Your task to perform on an android device: change the clock display to analog Image 0: 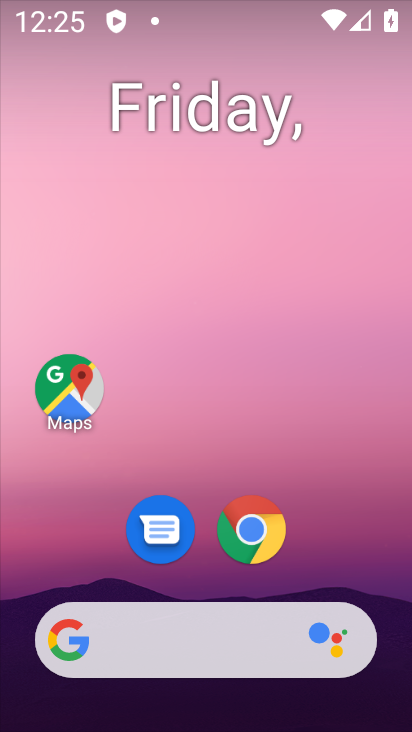
Step 0: drag from (201, 600) to (197, 174)
Your task to perform on an android device: change the clock display to analog Image 1: 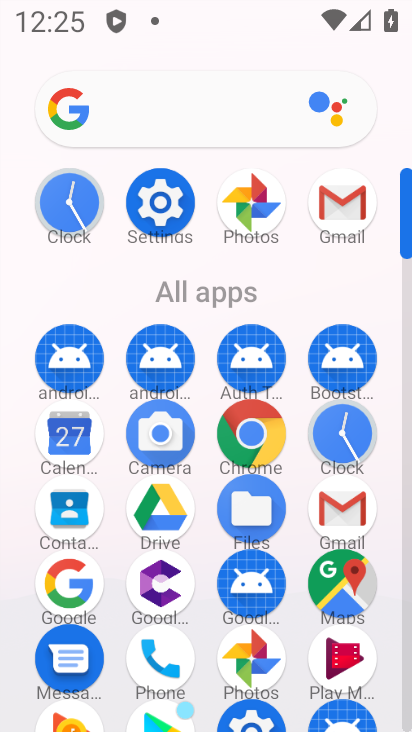
Step 1: click (348, 437)
Your task to perform on an android device: change the clock display to analog Image 2: 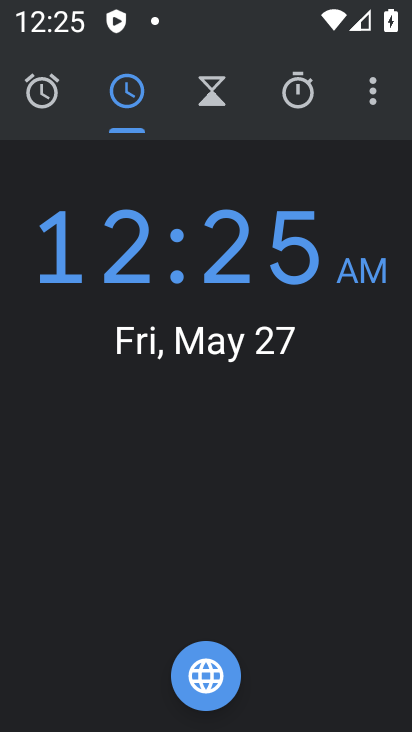
Step 2: click (373, 91)
Your task to perform on an android device: change the clock display to analog Image 3: 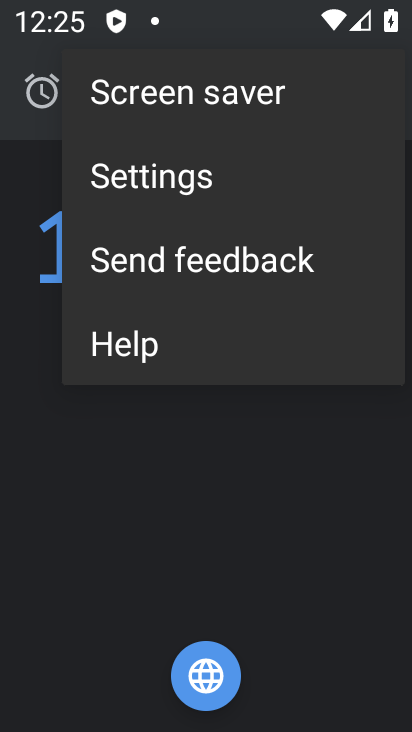
Step 3: click (193, 183)
Your task to perform on an android device: change the clock display to analog Image 4: 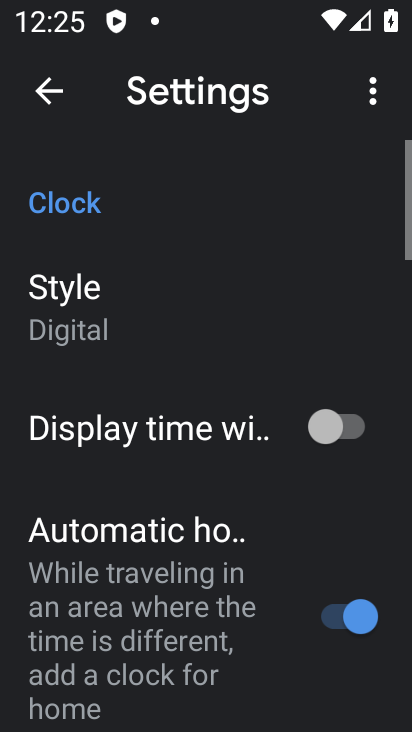
Step 4: click (83, 328)
Your task to perform on an android device: change the clock display to analog Image 5: 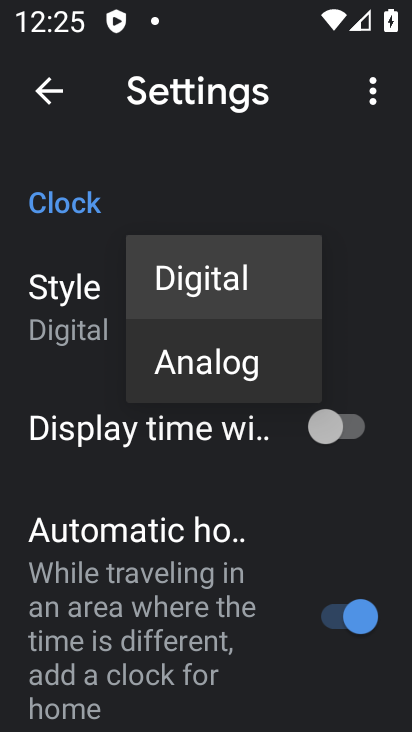
Step 5: click (172, 360)
Your task to perform on an android device: change the clock display to analog Image 6: 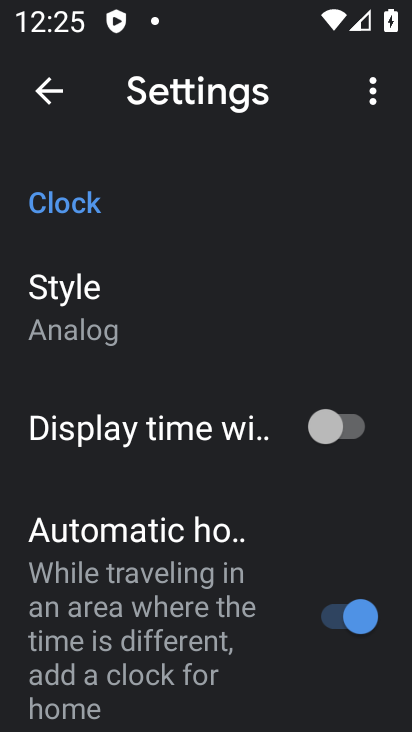
Step 6: task complete